Your task to perform on an android device: stop showing notifications on the lock screen Image 0: 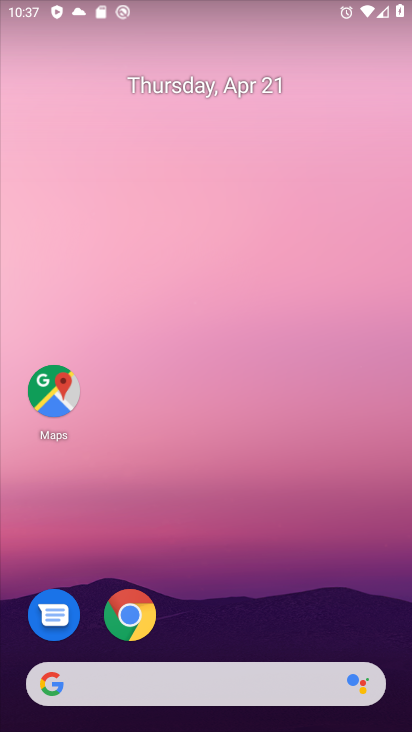
Step 0: drag from (234, 624) to (361, 28)
Your task to perform on an android device: stop showing notifications on the lock screen Image 1: 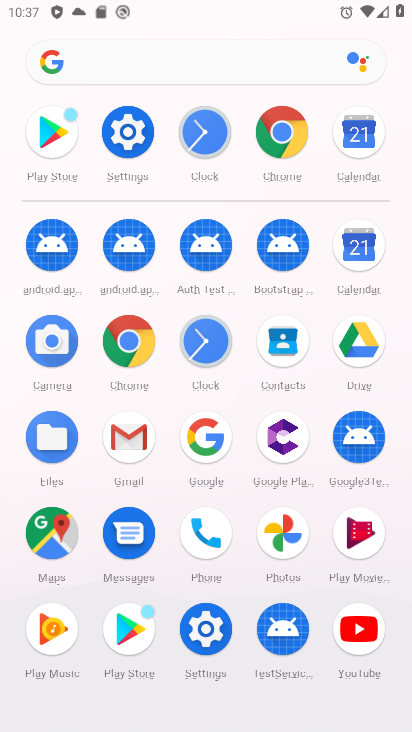
Step 1: click (279, 125)
Your task to perform on an android device: stop showing notifications on the lock screen Image 2: 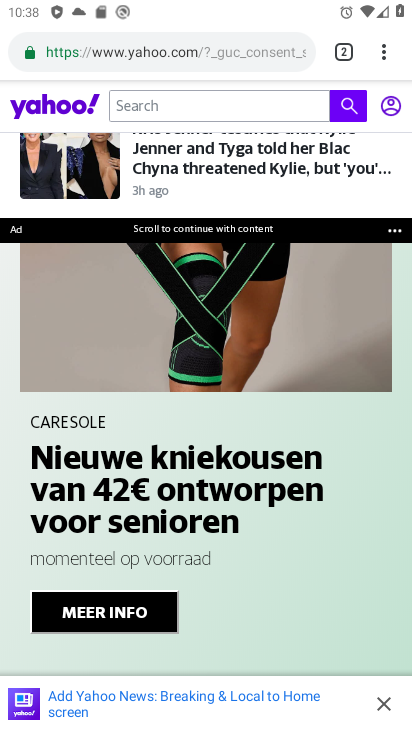
Step 2: press home button
Your task to perform on an android device: stop showing notifications on the lock screen Image 3: 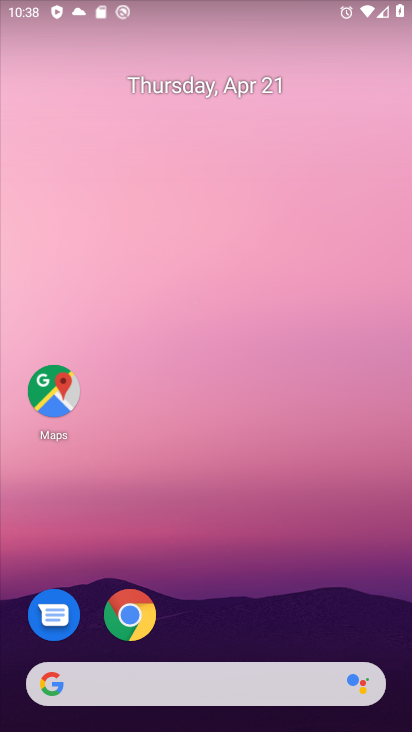
Step 3: drag from (224, 654) to (245, 57)
Your task to perform on an android device: stop showing notifications on the lock screen Image 4: 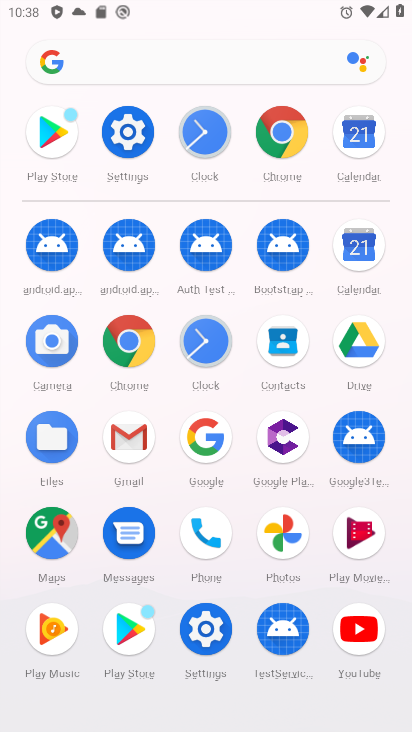
Step 4: click (121, 121)
Your task to perform on an android device: stop showing notifications on the lock screen Image 5: 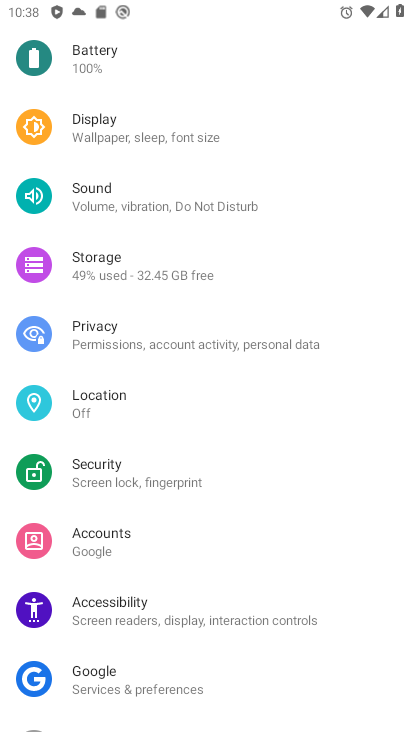
Step 5: drag from (136, 87) to (177, 522)
Your task to perform on an android device: stop showing notifications on the lock screen Image 6: 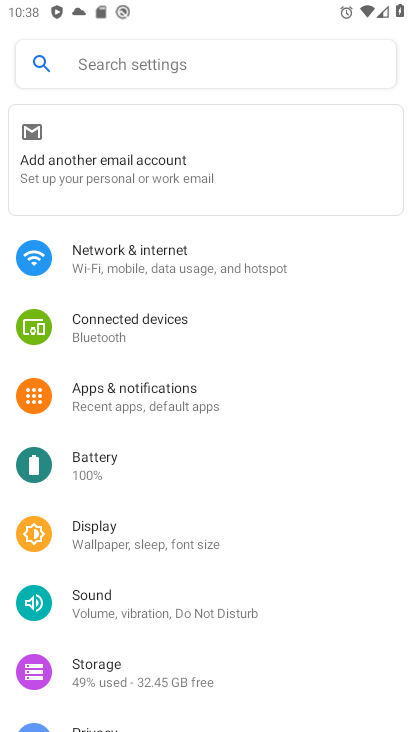
Step 6: click (174, 394)
Your task to perform on an android device: stop showing notifications on the lock screen Image 7: 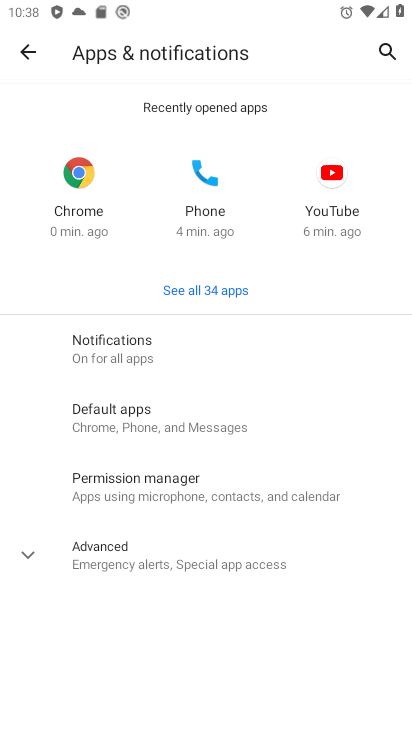
Step 7: click (134, 349)
Your task to perform on an android device: stop showing notifications on the lock screen Image 8: 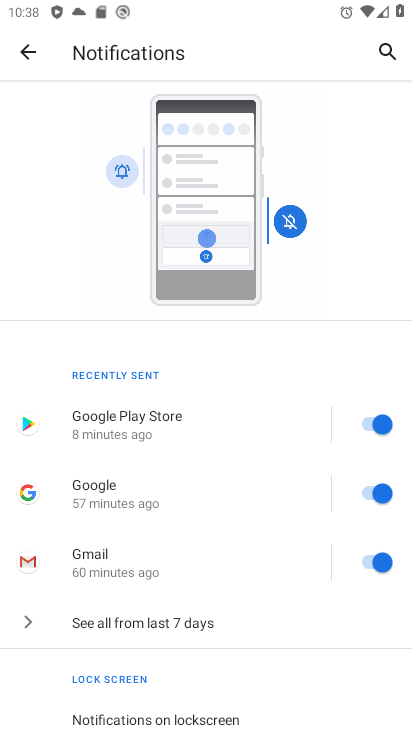
Step 8: drag from (182, 656) to (218, 367)
Your task to perform on an android device: stop showing notifications on the lock screen Image 9: 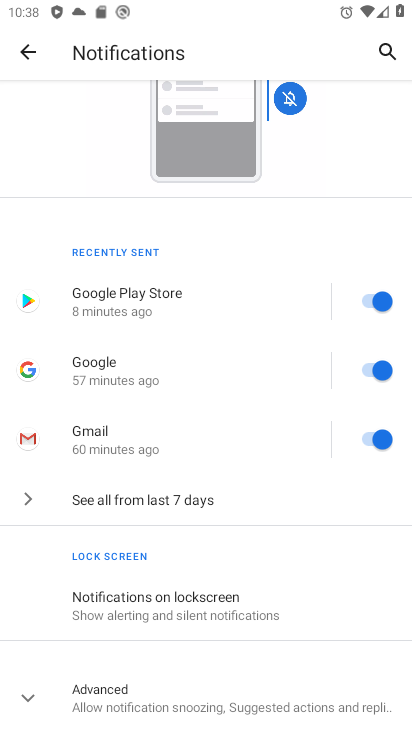
Step 9: click (198, 606)
Your task to perform on an android device: stop showing notifications on the lock screen Image 10: 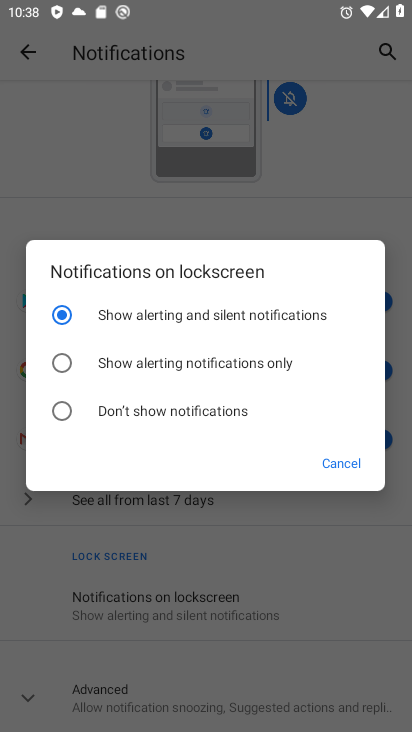
Step 10: click (58, 352)
Your task to perform on an android device: stop showing notifications on the lock screen Image 11: 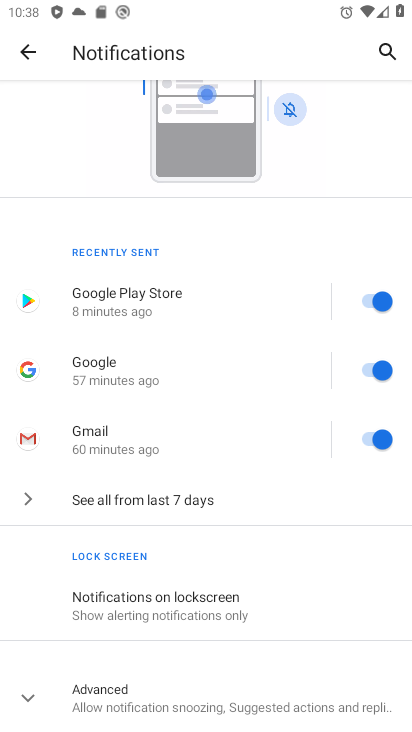
Step 11: task complete